Your task to perform on an android device: Empty the shopping cart on amazon.com. Add logitech g903 to the cart on amazon.com Image 0: 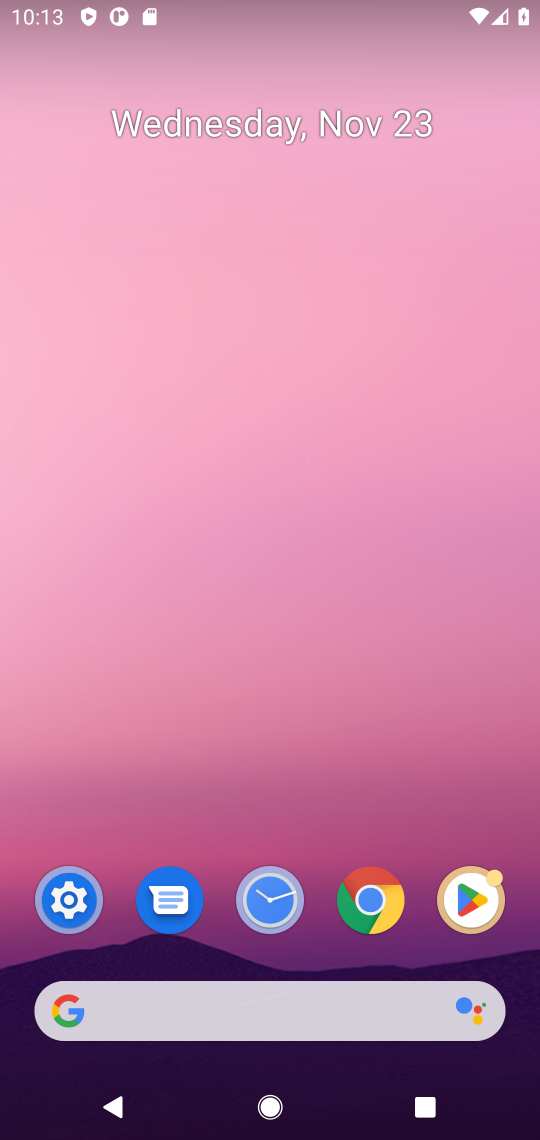
Step 0: press home button
Your task to perform on an android device: Empty the shopping cart on amazon.com. Add logitech g903 to the cart on amazon.com Image 1: 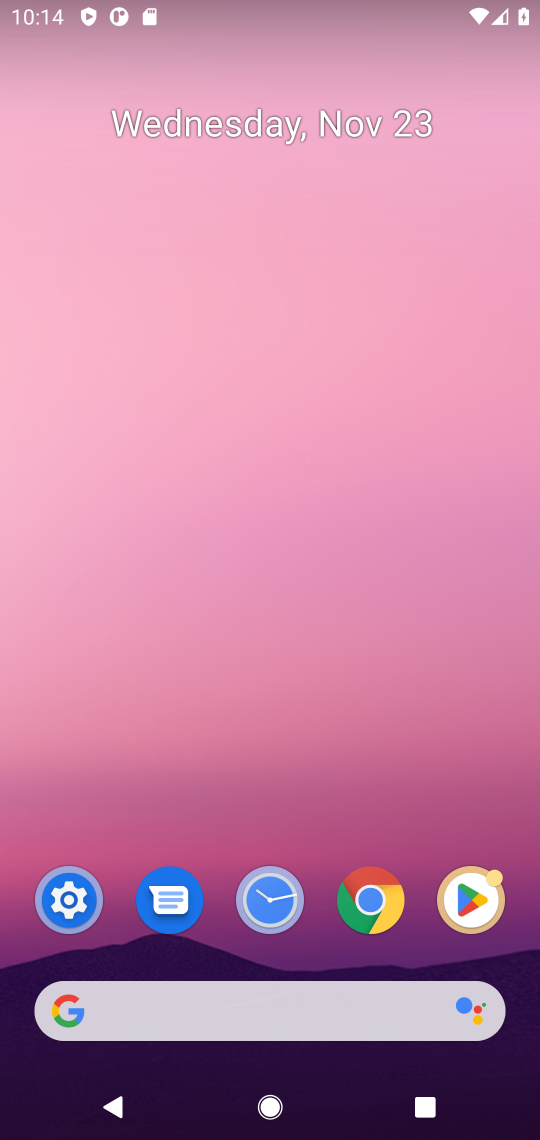
Step 1: press home button
Your task to perform on an android device: Empty the shopping cart on amazon.com. Add logitech g903 to the cart on amazon.com Image 2: 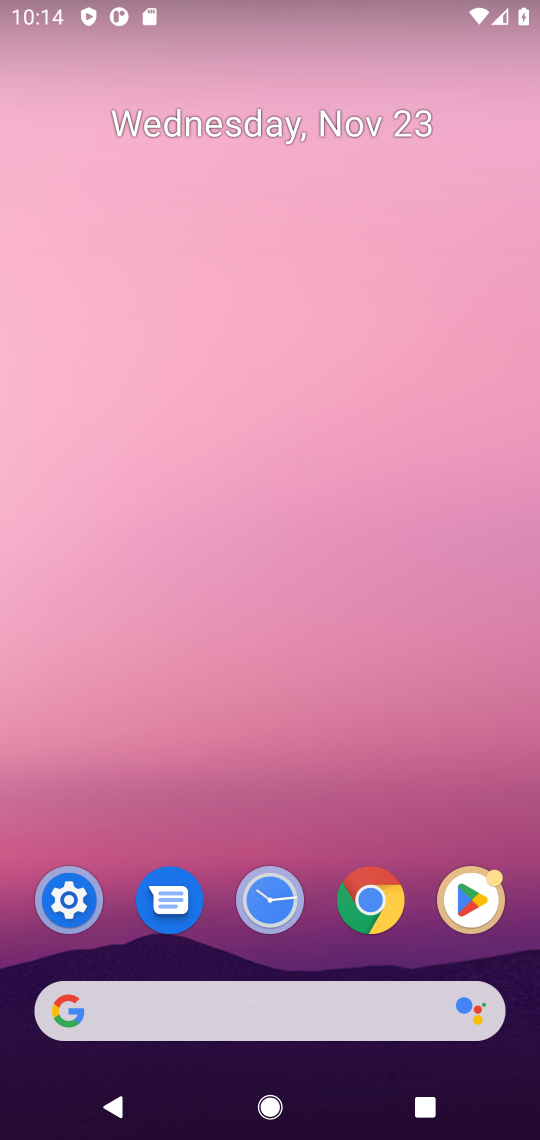
Step 2: click (337, 1028)
Your task to perform on an android device: Empty the shopping cart on amazon.com. Add logitech g903 to the cart on amazon.com Image 3: 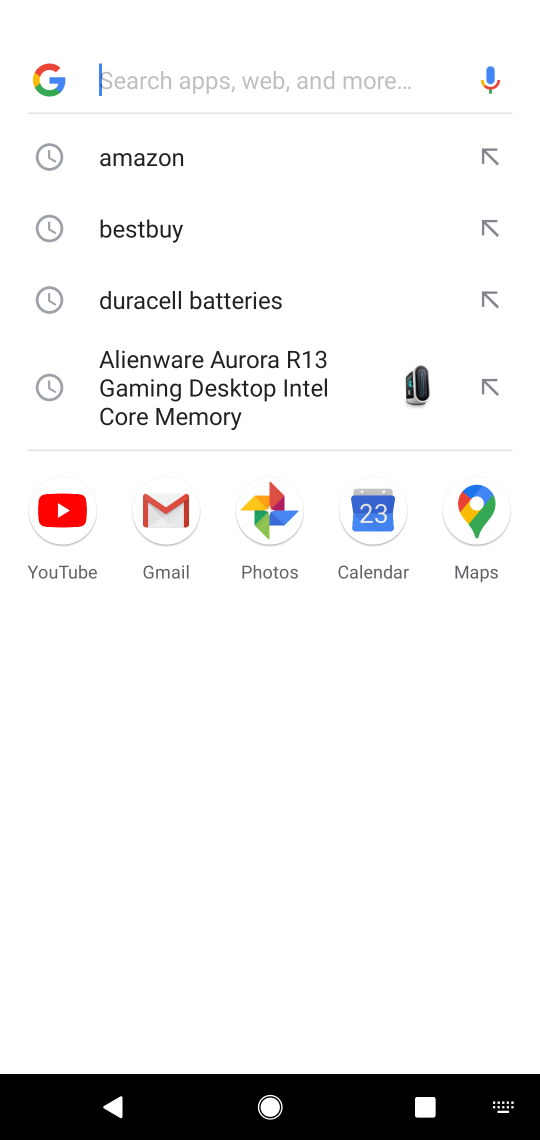
Step 3: type "amazon"
Your task to perform on an android device: Empty the shopping cart on amazon.com. Add logitech g903 to the cart on amazon.com Image 4: 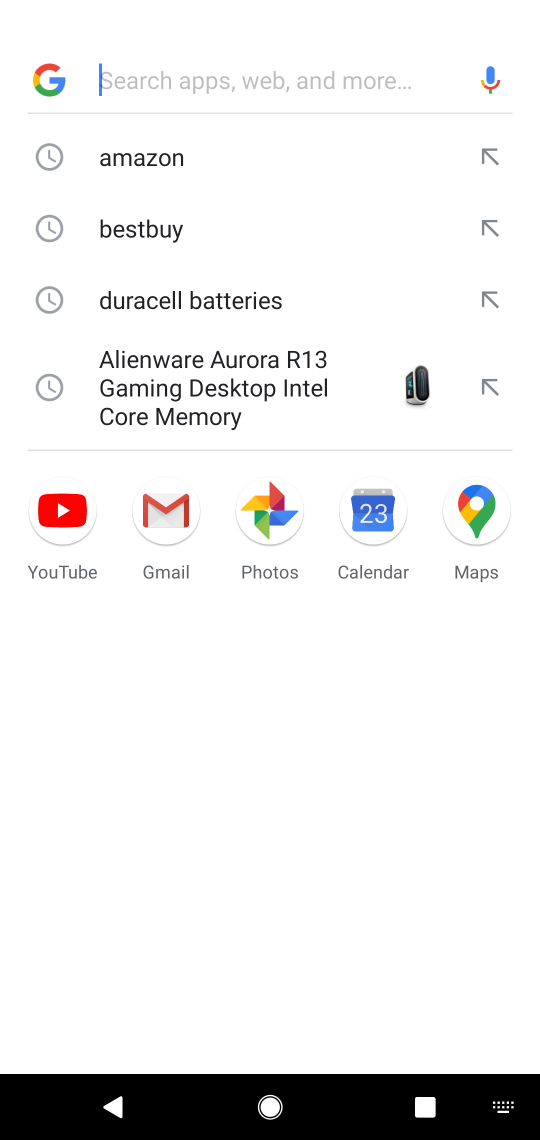
Step 4: click (202, 166)
Your task to perform on an android device: Empty the shopping cart on amazon.com. Add logitech g903 to the cart on amazon.com Image 5: 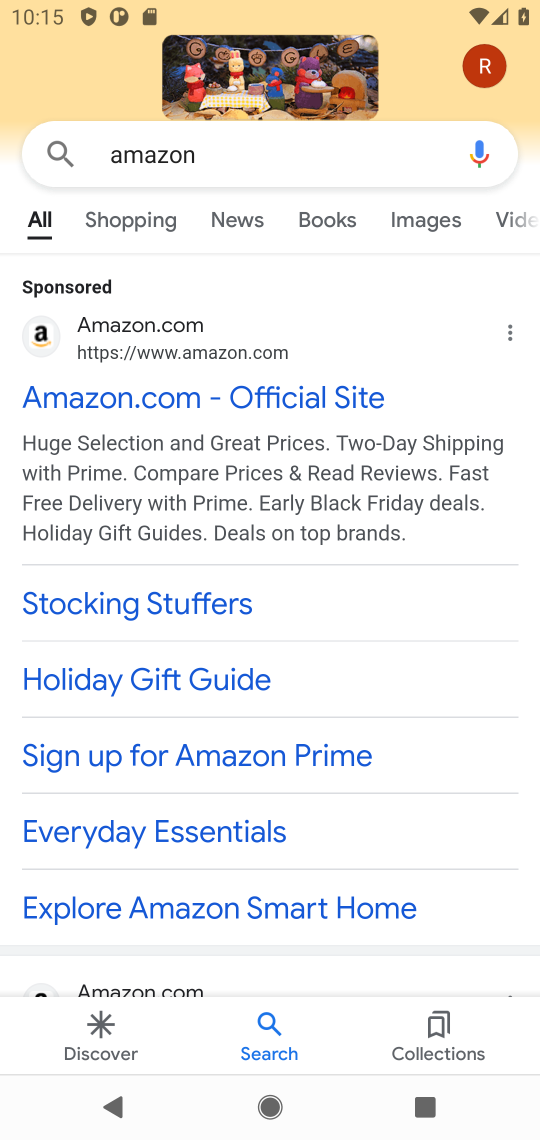
Step 5: click (249, 405)
Your task to perform on an android device: Empty the shopping cart on amazon.com. Add logitech g903 to the cart on amazon.com Image 6: 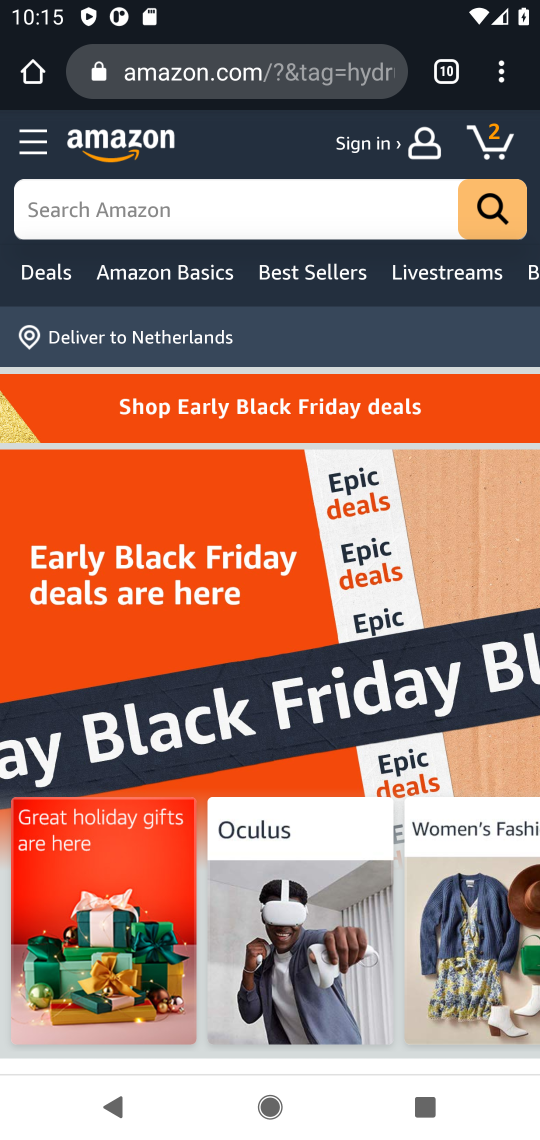
Step 6: click (112, 191)
Your task to perform on an android device: Empty the shopping cart on amazon.com. Add logitech g903 to the cart on amazon.com Image 7: 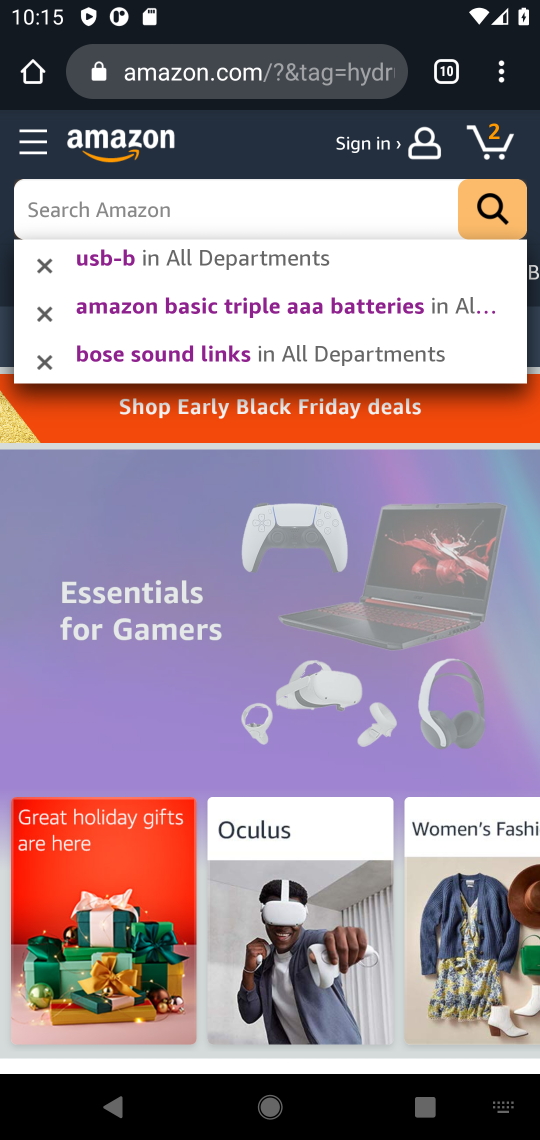
Step 7: type "logitech g903"
Your task to perform on an android device: Empty the shopping cart on amazon.com. Add logitech g903 to the cart on amazon.com Image 8: 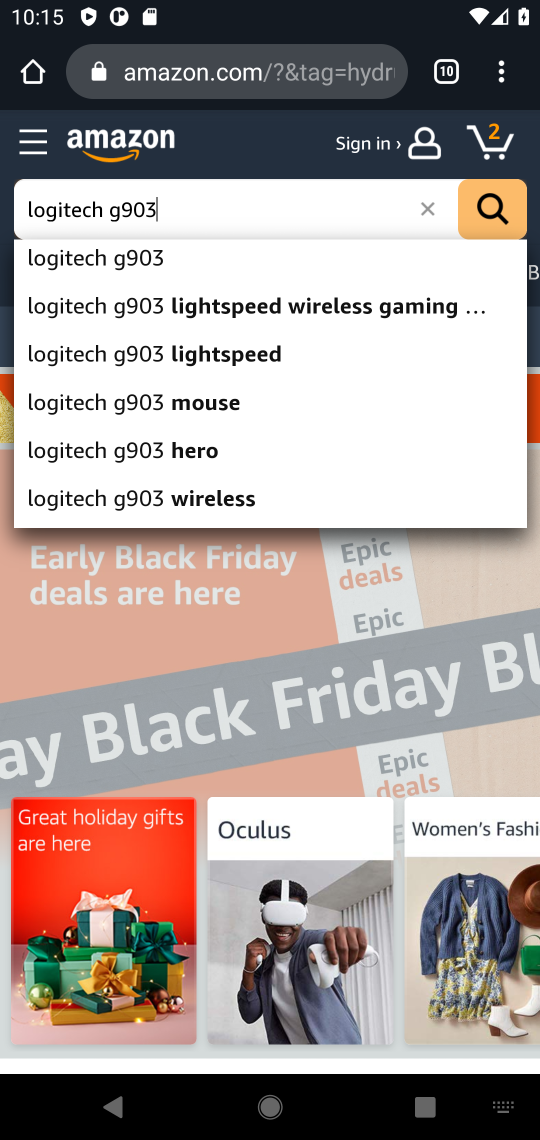
Step 8: click (126, 249)
Your task to perform on an android device: Empty the shopping cart on amazon.com. Add logitech g903 to the cart on amazon.com Image 9: 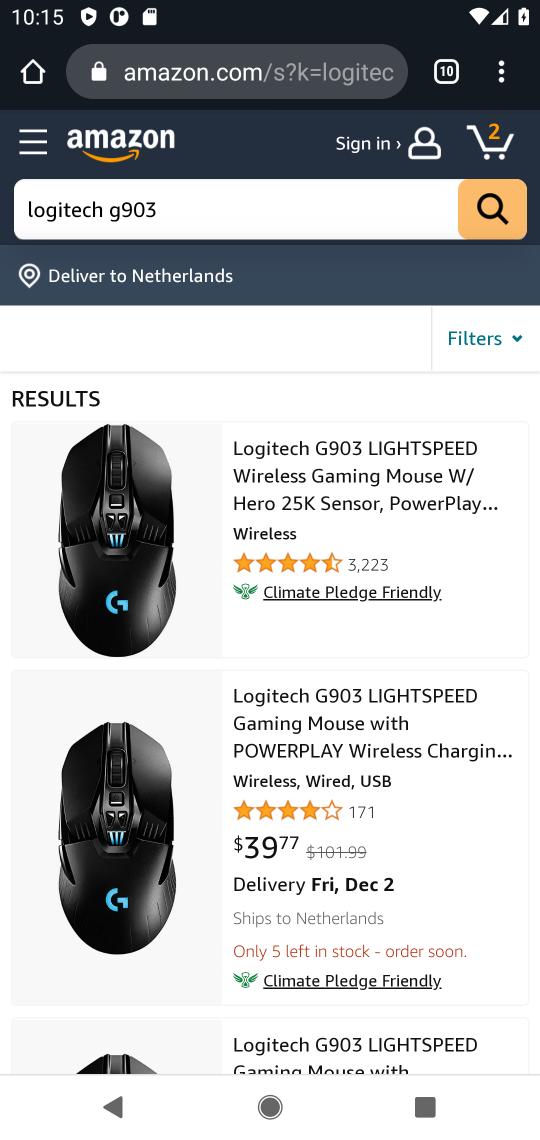
Step 9: click (252, 490)
Your task to perform on an android device: Empty the shopping cart on amazon.com. Add logitech g903 to the cart on amazon.com Image 10: 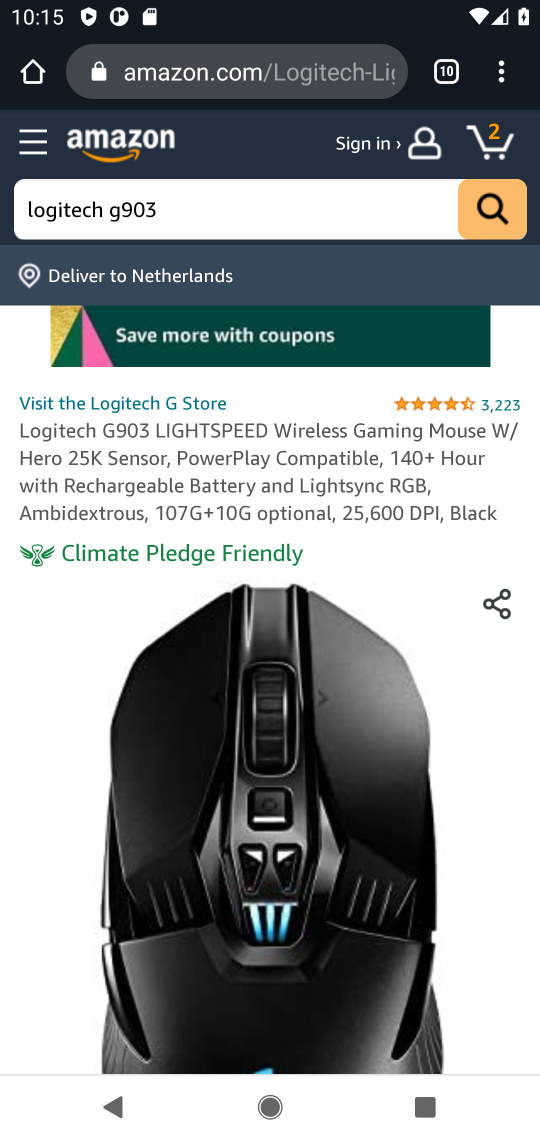
Step 10: drag from (375, 934) to (357, 386)
Your task to perform on an android device: Empty the shopping cart on amazon.com. Add logitech g903 to the cart on amazon.com Image 11: 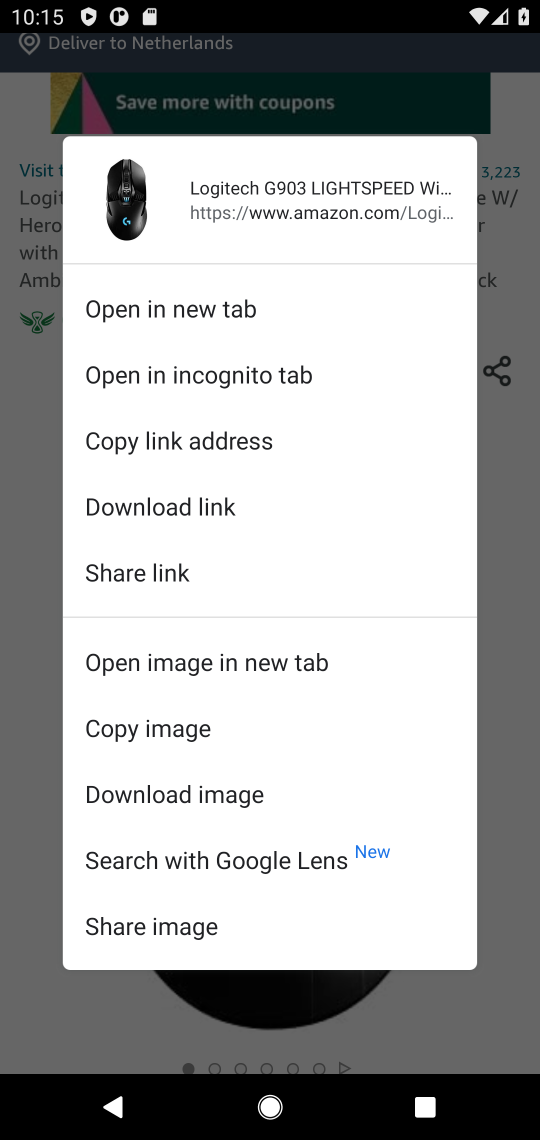
Step 11: click (516, 799)
Your task to perform on an android device: Empty the shopping cart on amazon.com. Add logitech g903 to the cart on amazon.com Image 12: 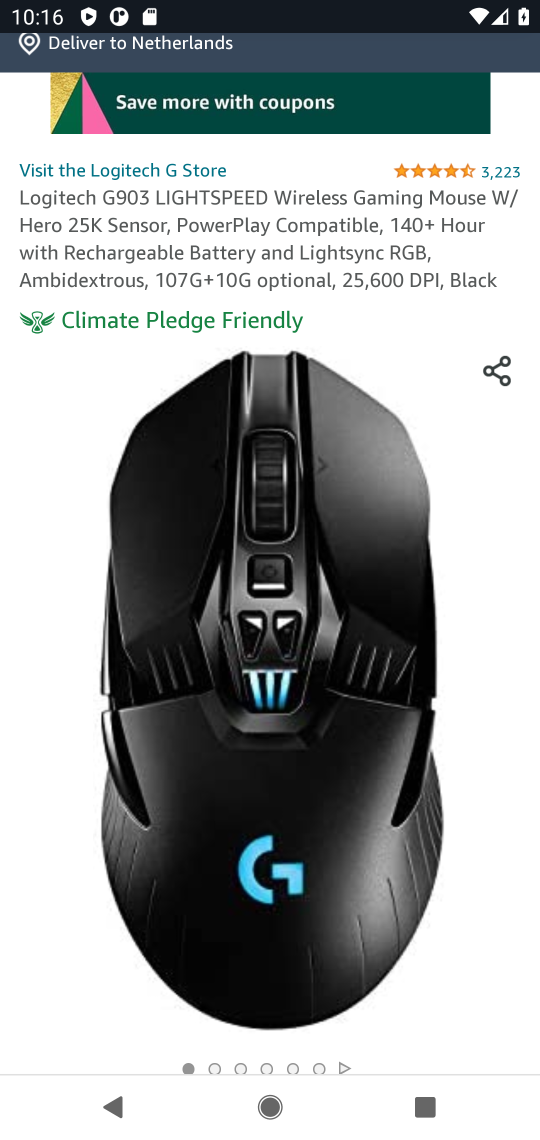
Step 12: drag from (328, 914) to (402, 474)
Your task to perform on an android device: Empty the shopping cart on amazon.com. Add logitech g903 to the cart on amazon.com Image 13: 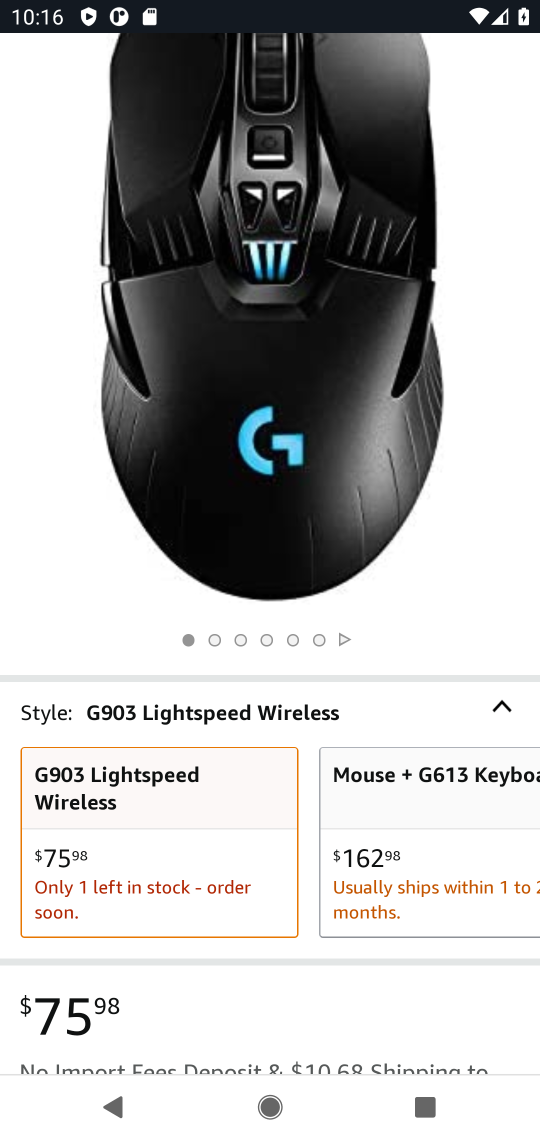
Step 13: drag from (353, 767) to (353, 270)
Your task to perform on an android device: Empty the shopping cart on amazon.com. Add logitech g903 to the cart on amazon.com Image 14: 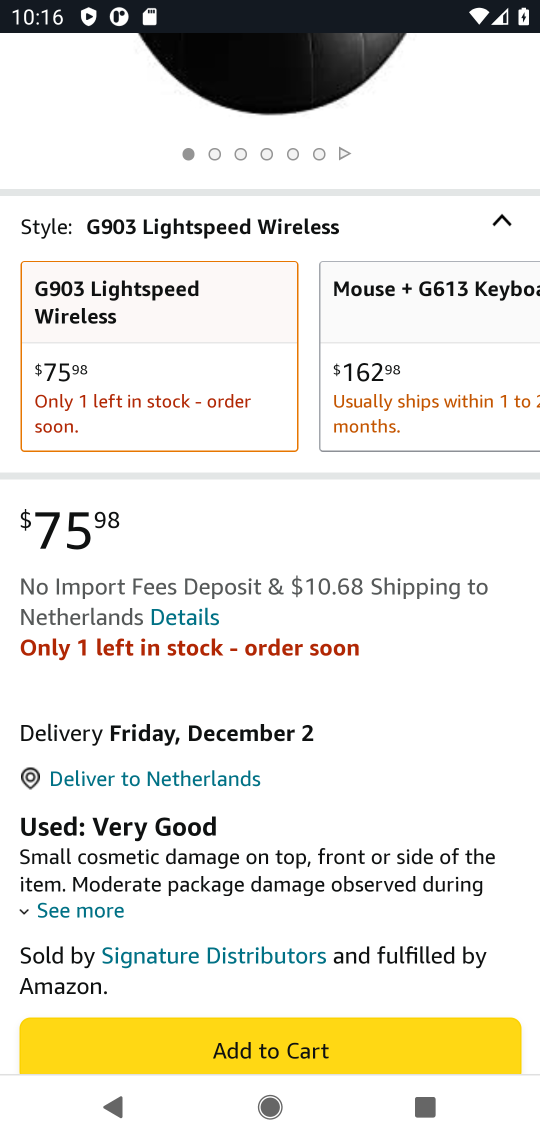
Step 14: click (225, 875)
Your task to perform on an android device: Empty the shopping cart on amazon.com. Add logitech g903 to the cart on amazon.com Image 15: 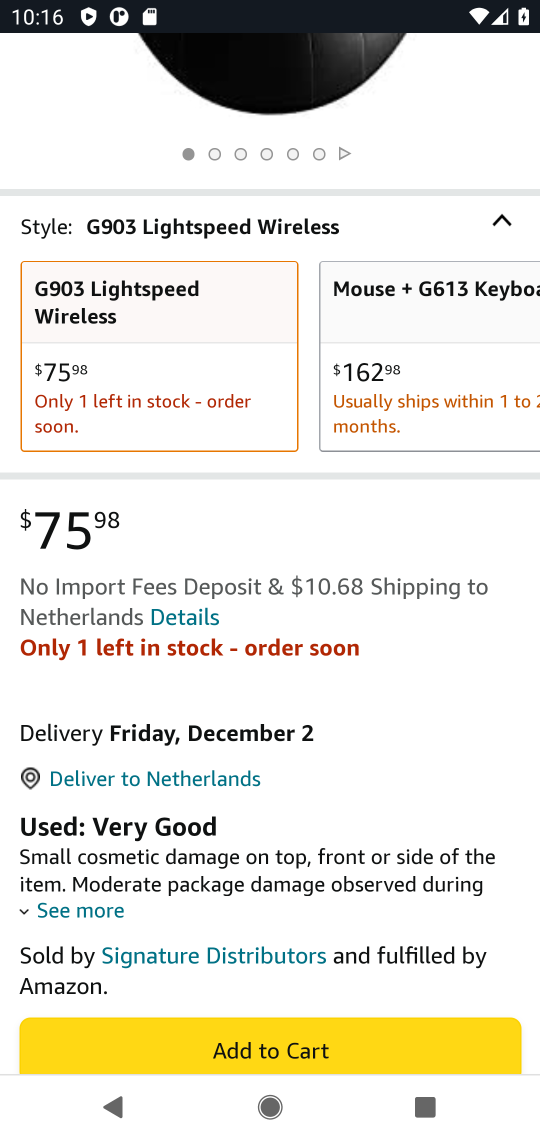
Step 15: click (240, 1034)
Your task to perform on an android device: Empty the shopping cart on amazon.com. Add logitech g903 to the cart on amazon.com Image 16: 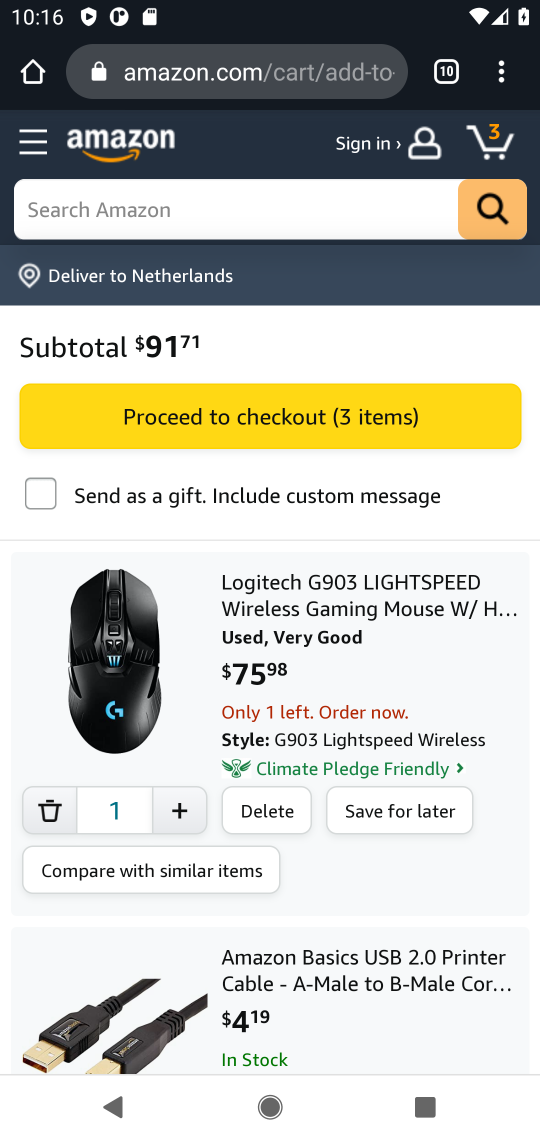
Step 16: task complete